Your task to perform on an android device: Go to ESPN.com Image 0: 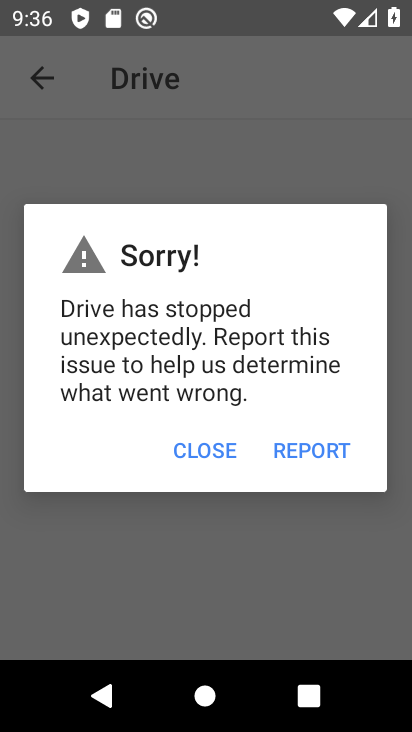
Step 0: press home button
Your task to perform on an android device: Go to ESPN.com Image 1: 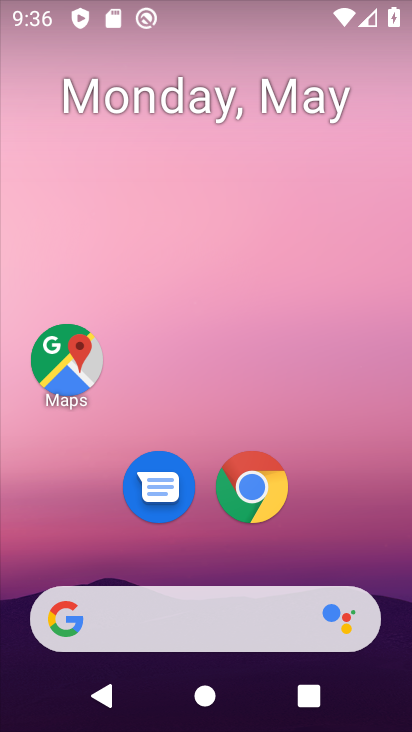
Step 1: click (246, 492)
Your task to perform on an android device: Go to ESPN.com Image 2: 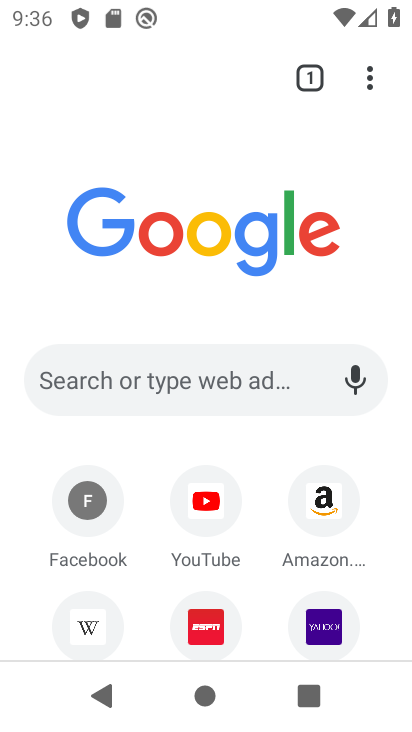
Step 2: click (207, 379)
Your task to perform on an android device: Go to ESPN.com Image 3: 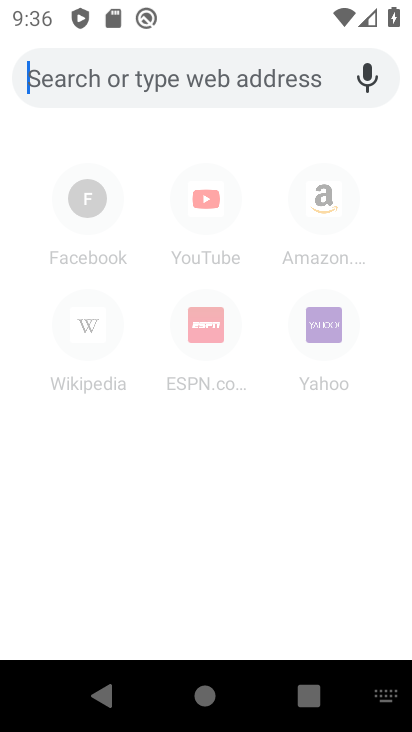
Step 3: type "ESPN.com"
Your task to perform on an android device: Go to ESPN.com Image 4: 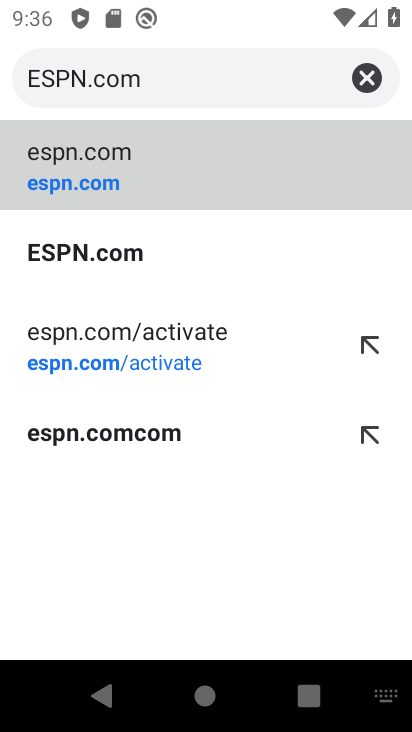
Step 4: click (202, 177)
Your task to perform on an android device: Go to ESPN.com Image 5: 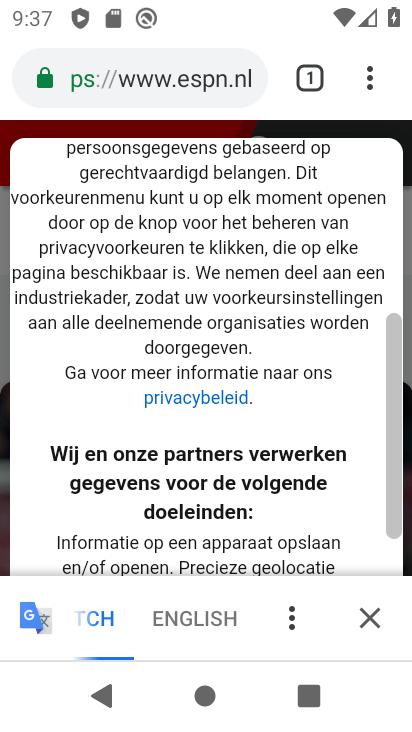
Step 5: task complete